Your task to perform on an android device: Show me the alarms in the clock app Image 0: 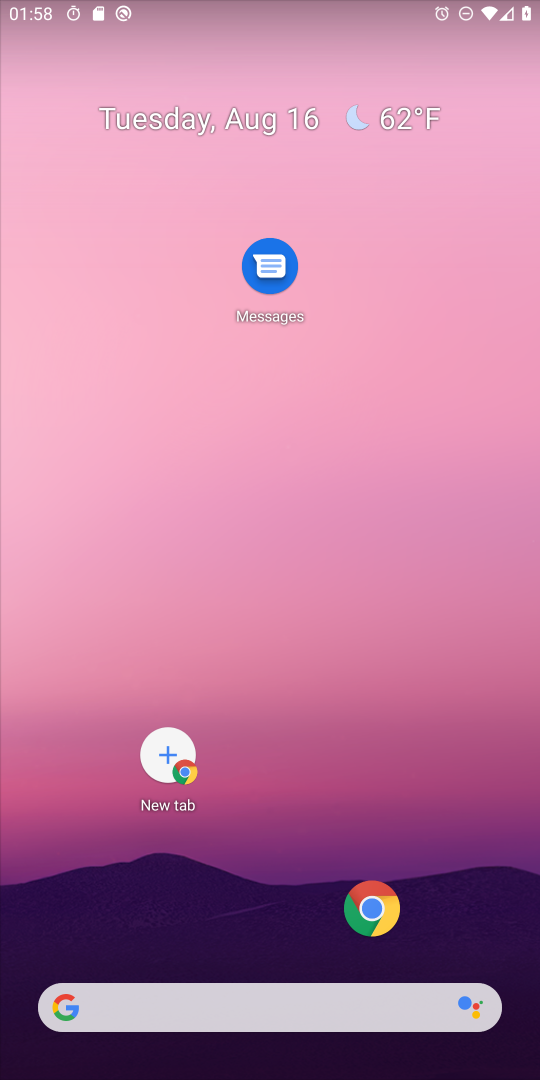
Step 0: drag from (247, 911) to (217, 232)
Your task to perform on an android device: Show me the alarms in the clock app Image 1: 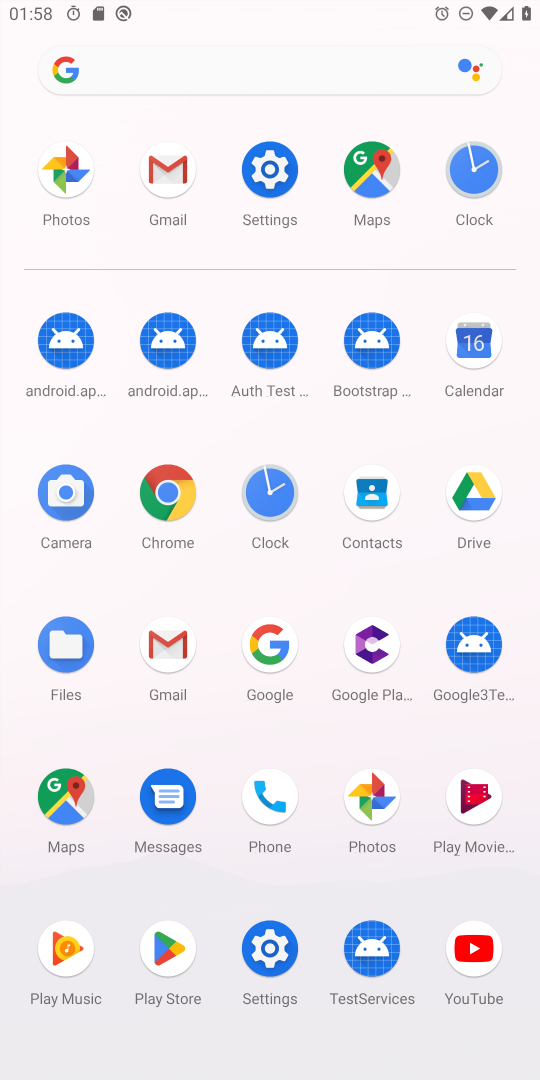
Step 1: click (459, 159)
Your task to perform on an android device: Show me the alarms in the clock app Image 2: 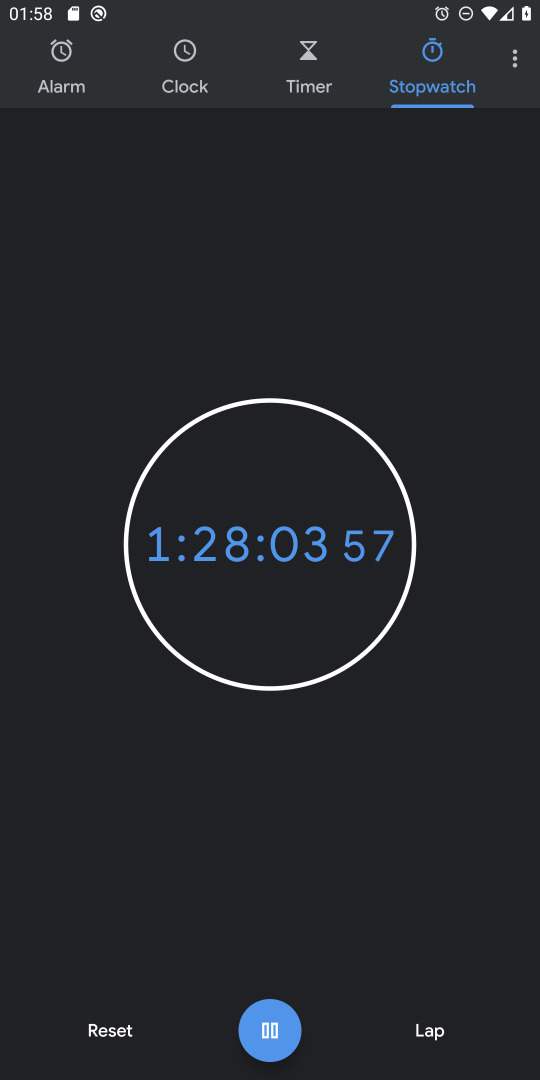
Step 2: click (78, 81)
Your task to perform on an android device: Show me the alarms in the clock app Image 3: 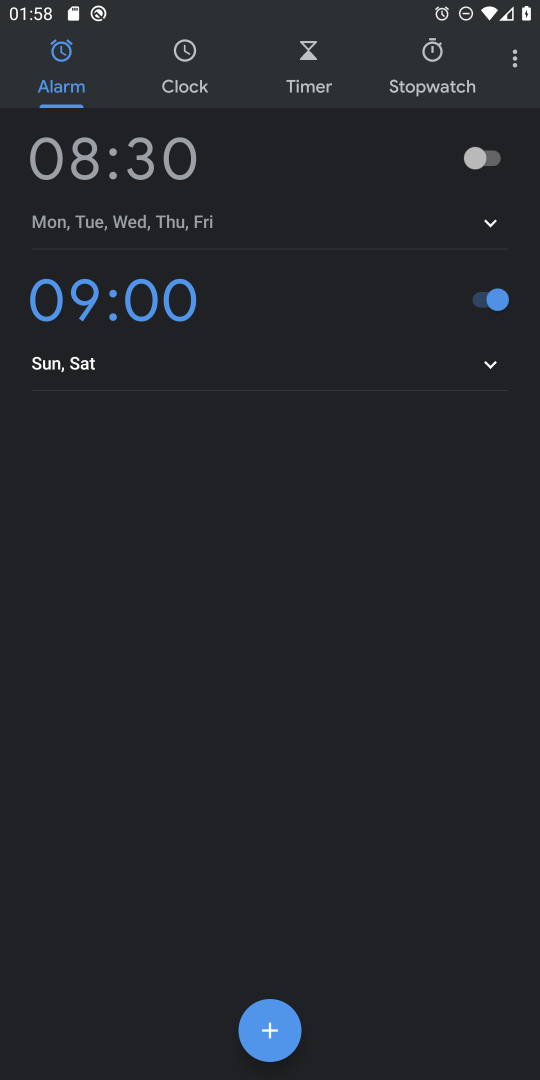
Step 3: task complete